Your task to perform on an android device: turn smart compose on in the gmail app Image 0: 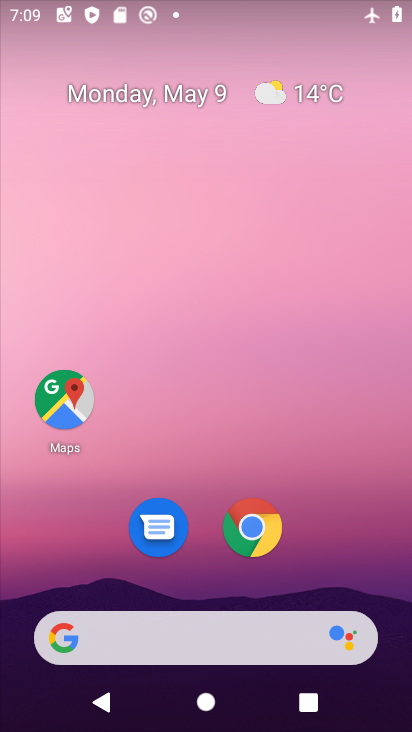
Step 0: drag from (346, 574) to (273, 10)
Your task to perform on an android device: turn smart compose on in the gmail app Image 1: 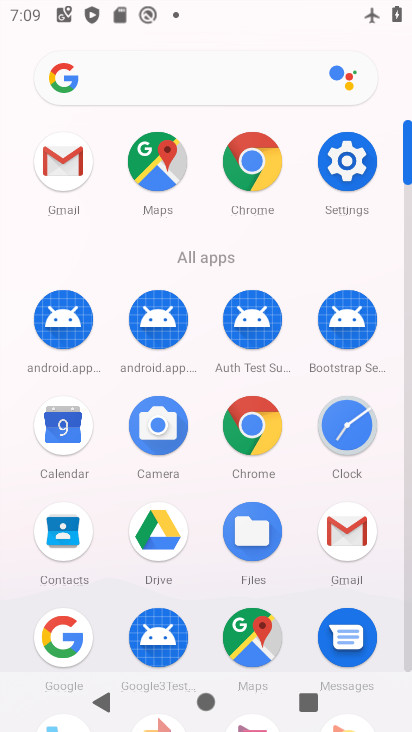
Step 1: click (58, 161)
Your task to perform on an android device: turn smart compose on in the gmail app Image 2: 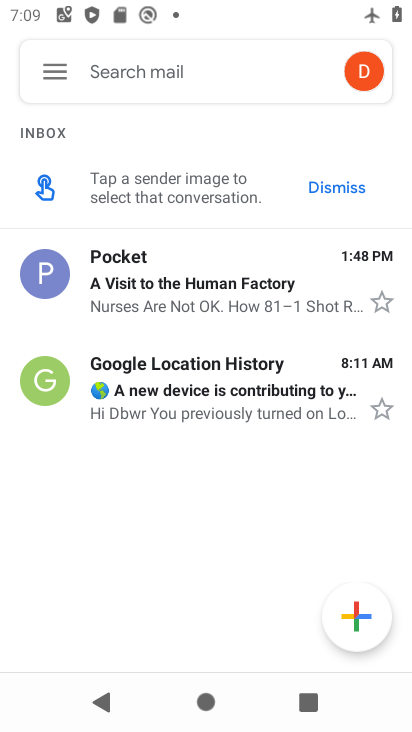
Step 2: click (59, 75)
Your task to perform on an android device: turn smart compose on in the gmail app Image 3: 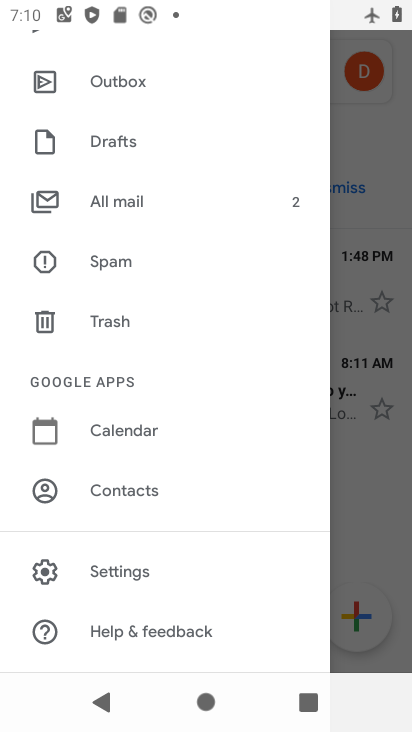
Step 3: click (123, 573)
Your task to perform on an android device: turn smart compose on in the gmail app Image 4: 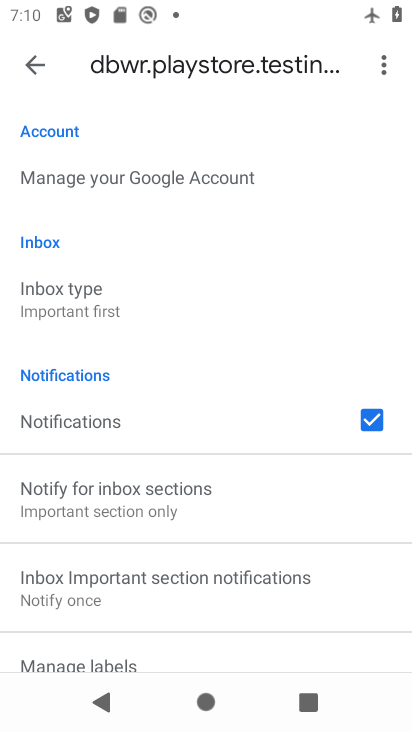
Step 4: task complete